Your task to perform on an android device: Open the stopwatch Image 0: 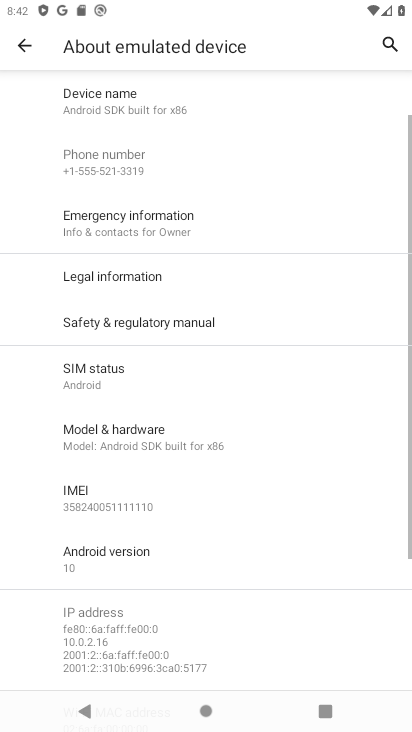
Step 0: press back button
Your task to perform on an android device: Open the stopwatch Image 1: 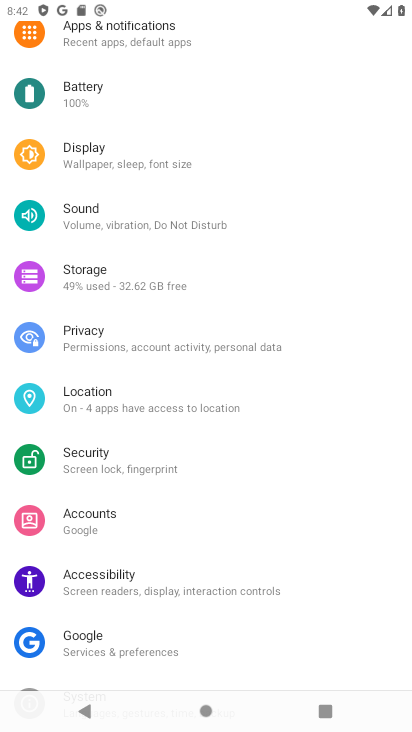
Step 1: press back button
Your task to perform on an android device: Open the stopwatch Image 2: 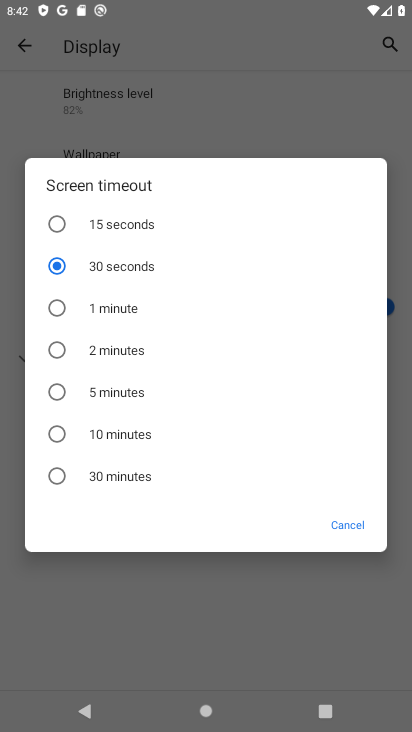
Step 2: click (347, 515)
Your task to perform on an android device: Open the stopwatch Image 3: 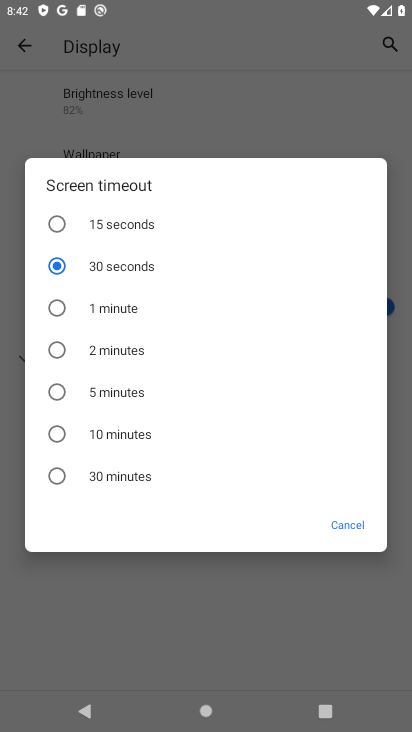
Step 3: click (347, 515)
Your task to perform on an android device: Open the stopwatch Image 4: 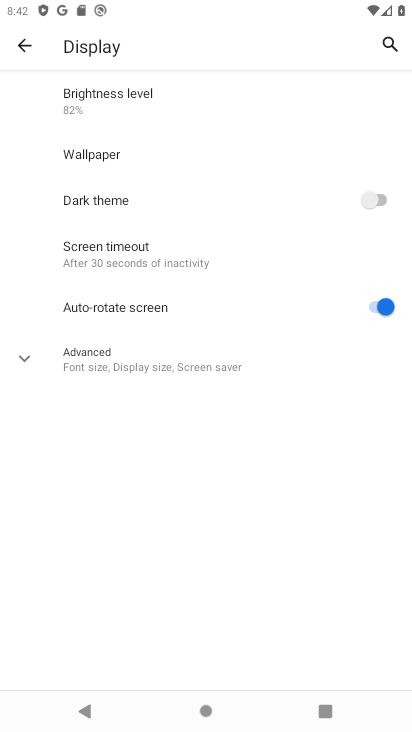
Step 4: click (349, 517)
Your task to perform on an android device: Open the stopwatch Image 5: 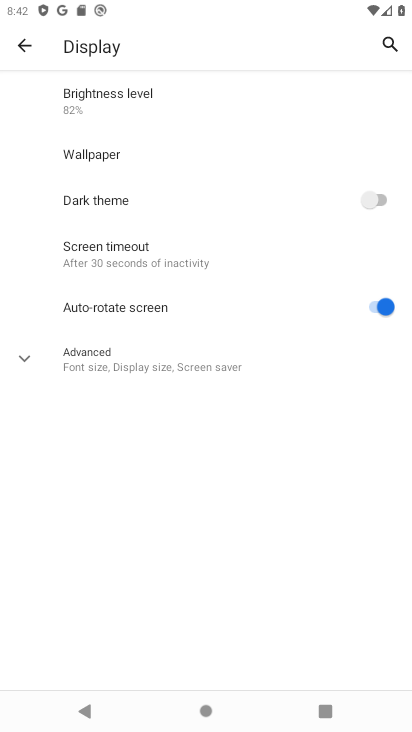
Step 5: click (23, 45)
Your task to perform on an android device: Open the stopwatch Image 6: 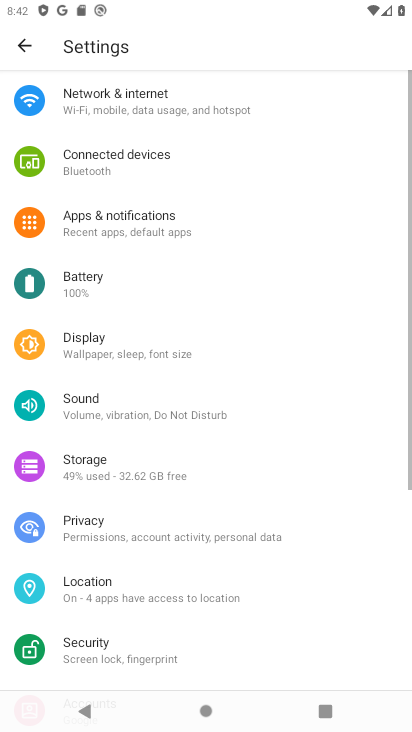
Step 6: press back button
Your task to perform on an android device: Open the stopwatch Image 7: 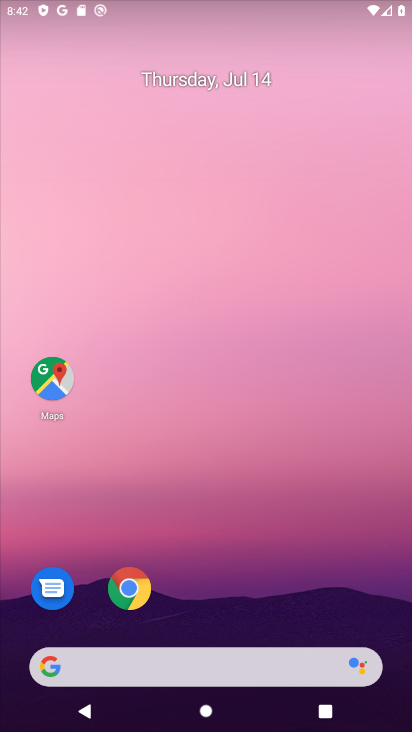
Step 7: drag from (265, 668) to (240, 294)
Your task to perform on an android device: Open the stopwatch Image 8: 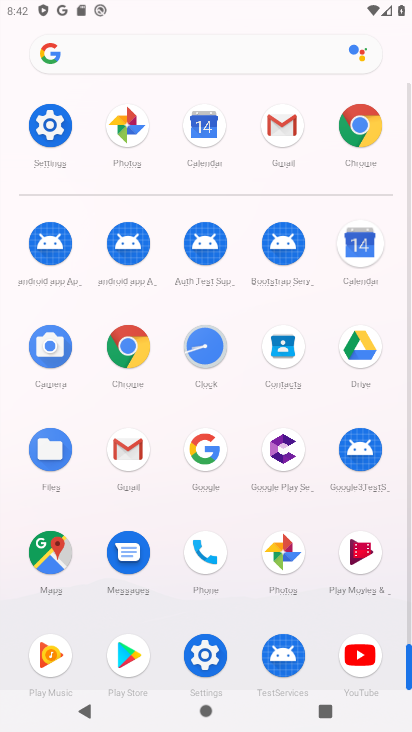
Step 8: click (193, 353)
Your task to perform on an android device: Open the stopwatch Image 9: 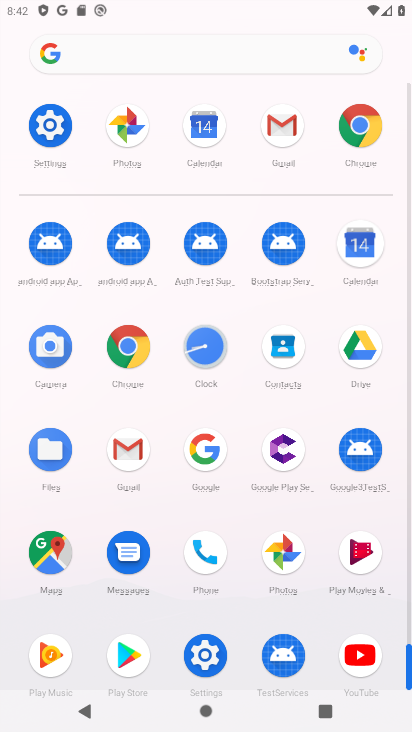
Step 9: click (194, 353)
Your task to perform on an android device: Open the stopwatch Image 10: 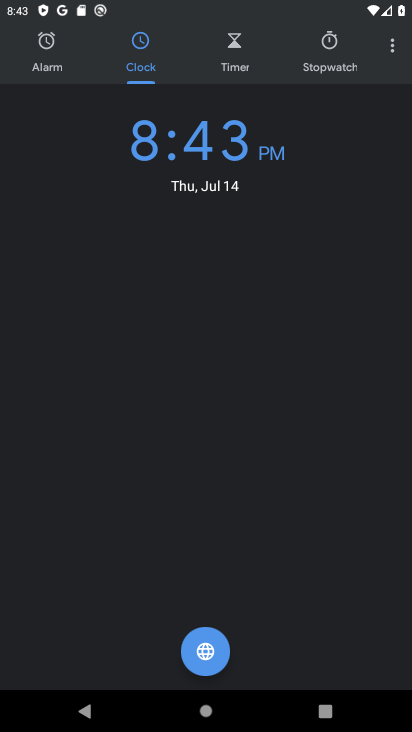
Step 10: click (323, 60)
Your task to perform on an android device: Open the stopwatch Image 11: 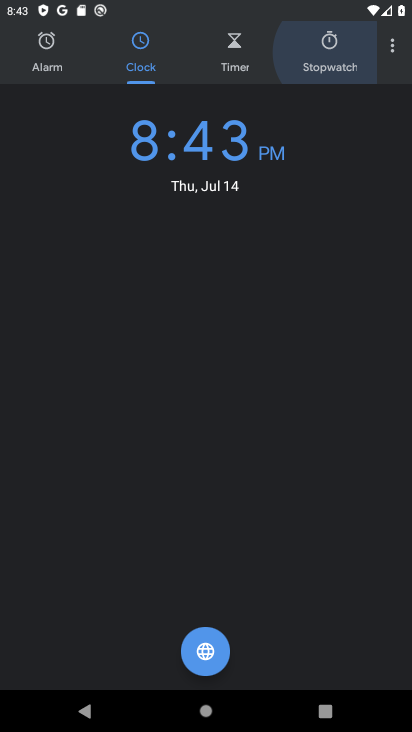
Step 11: click (324, 60)
Your task to perform on an android device: Open the stopwatch Image 12: 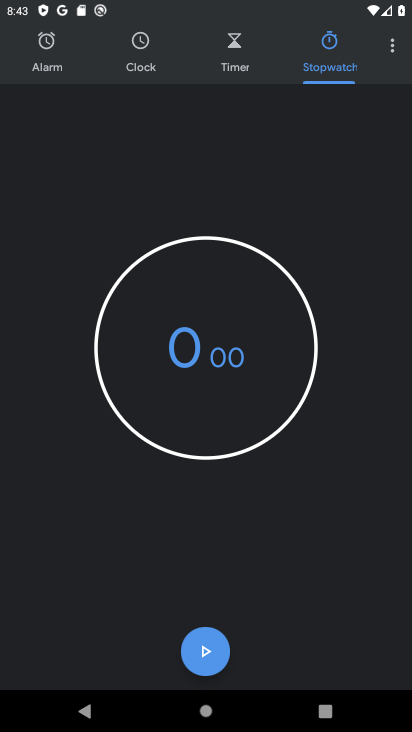
Step 12: click (215, 643)
Your task to perform on an android device: Open the stopwatch Image 13: 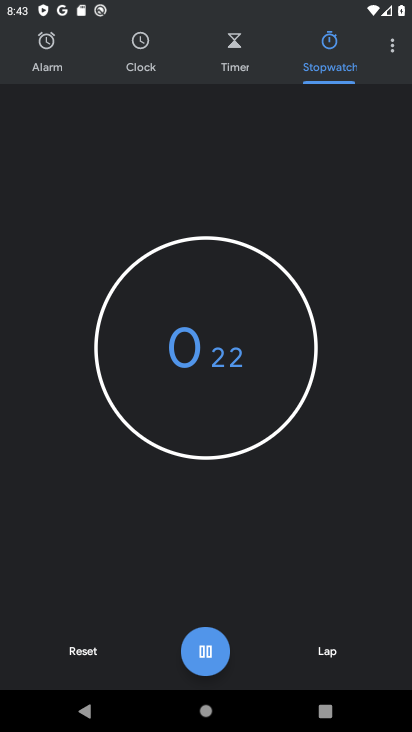
Step 13: click (197, 668)
Your task to perform on an android device: Open the stopwatch Image 14: 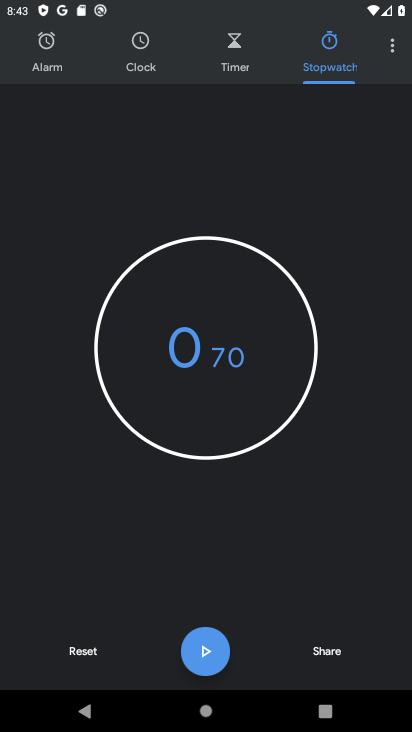
Step 14: click (202, 666)
Your task to perform on an android device: Open the stopwatch Image 15: 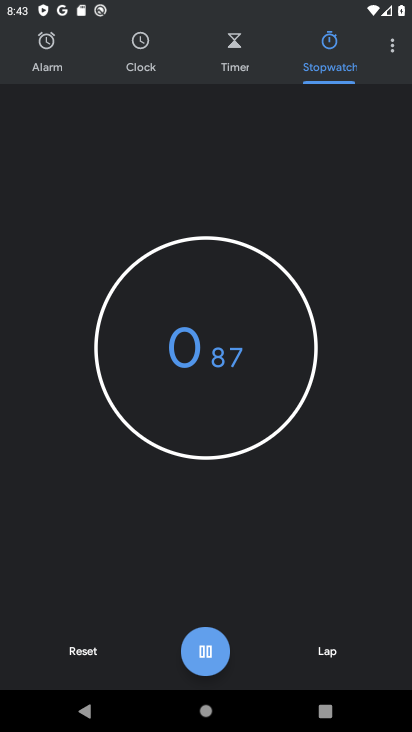
Step 15: click (202, 666)
Your task to perform on an android device: Open the stopwatch Image 16: 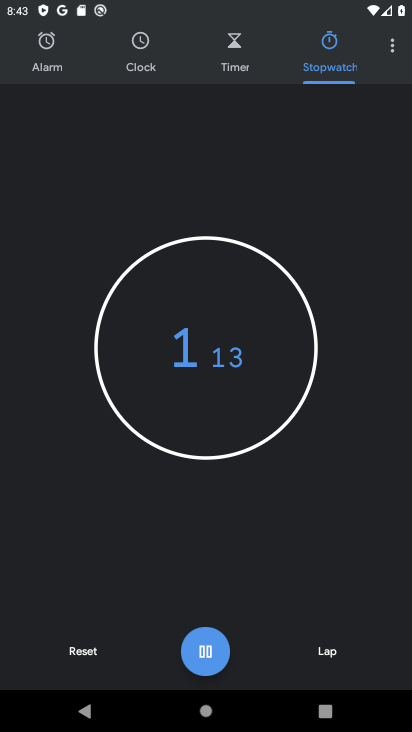
Step 16: click (207, 657)
Your task to perform on an android device: Open the stopwatch Image 17: 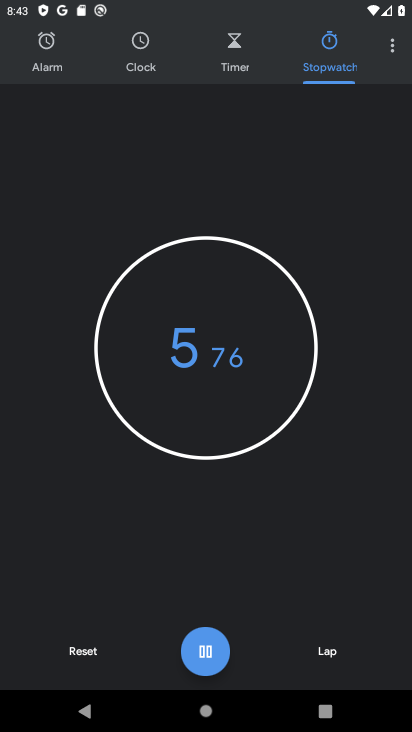
Step 17: click (206, 649)
Your task to perform on an android device: Open the stopwatch Image 18: 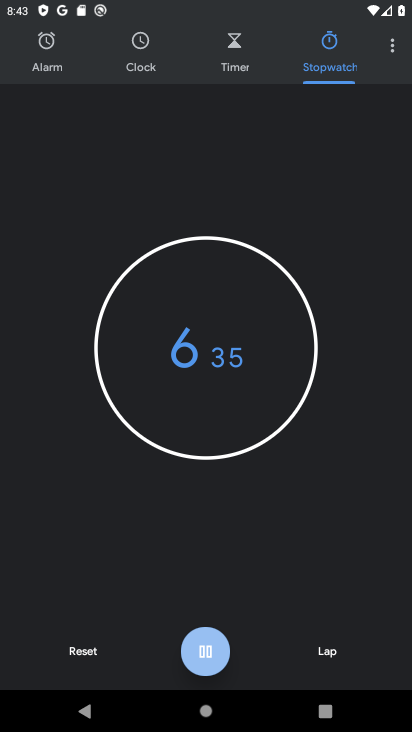
Step 18: click (202, 658)
Your task to perform on an android device: Open the stopwatch Image 19: 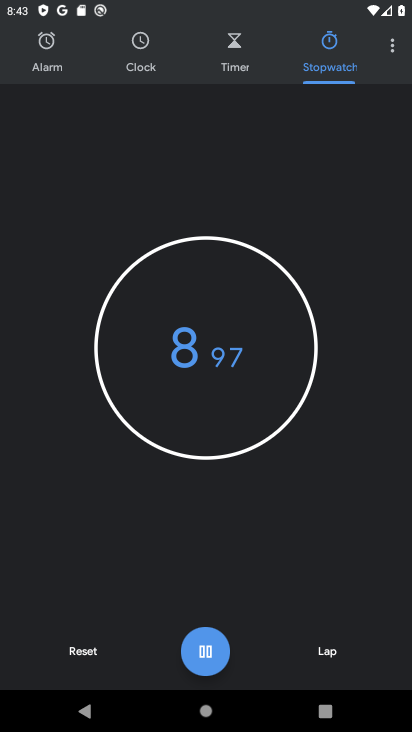
Step 19: click (205, 654)
Your task to perform on an android device: Open the stopwatch Image 20: 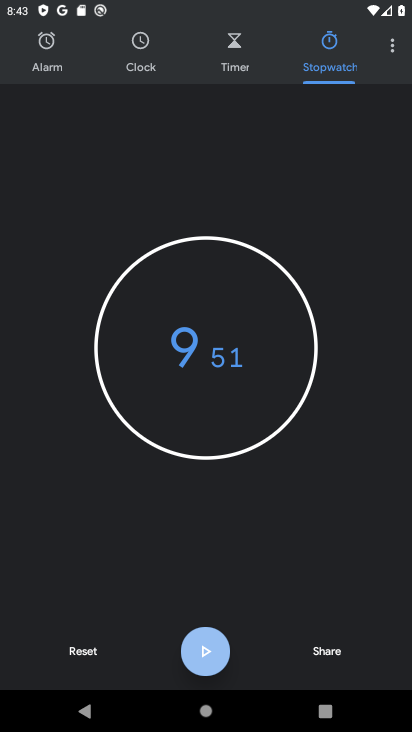
Step 20: click (212, 654)
Your task to perform on an android device: Open the stopwatch Image 21: 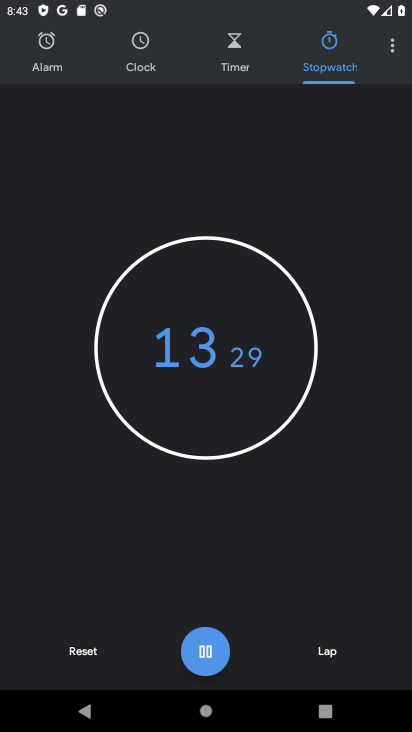
Step 21: click (203, 654)
Your task to perform on an android device: Open the stopwatch Image 22: 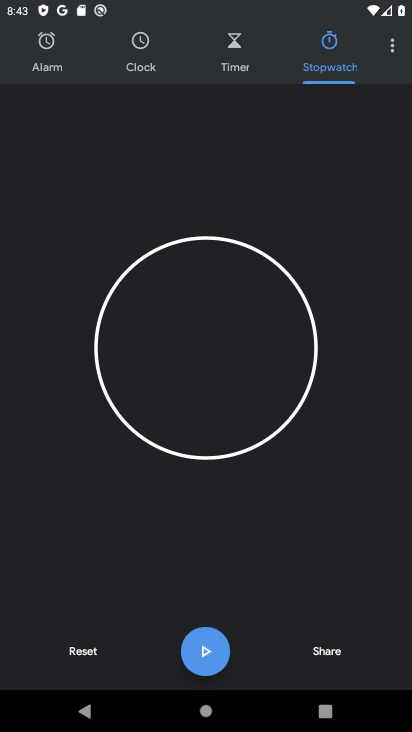
Step 22: task complete